Your task to perform on an android device: Go to Maps Image 0: 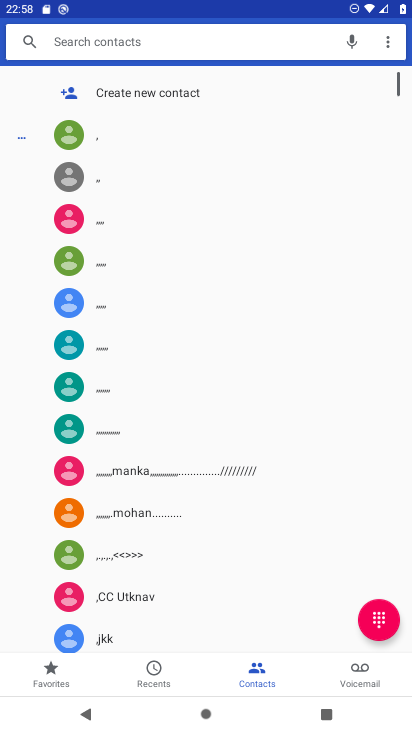
Step 0: press home button
Your task to perform on an android device: Go to Maps Image 1: 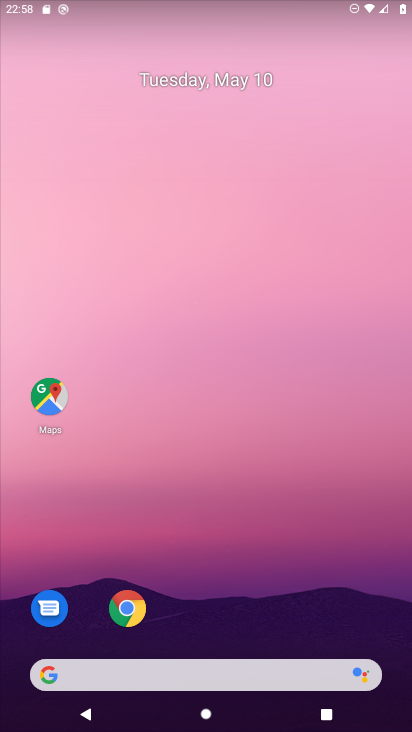
Step 1: drag from (262, 544) to (262, 406)
Your task to perform on an android device: Go to Maps Image 2: 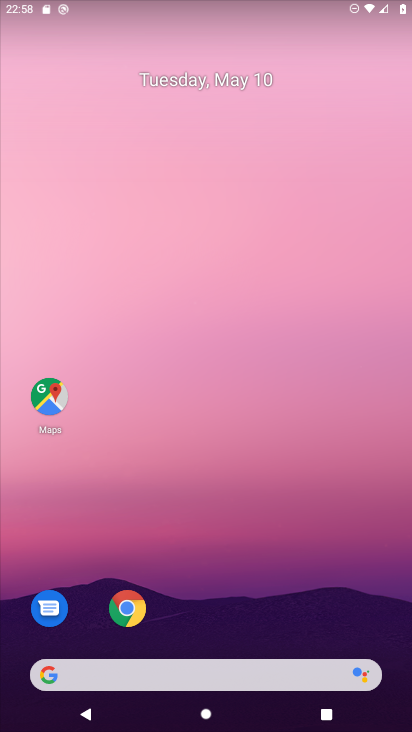
Step 2: click (42, 387)
Your task to perform on an android device: Go to Maps Image 3: 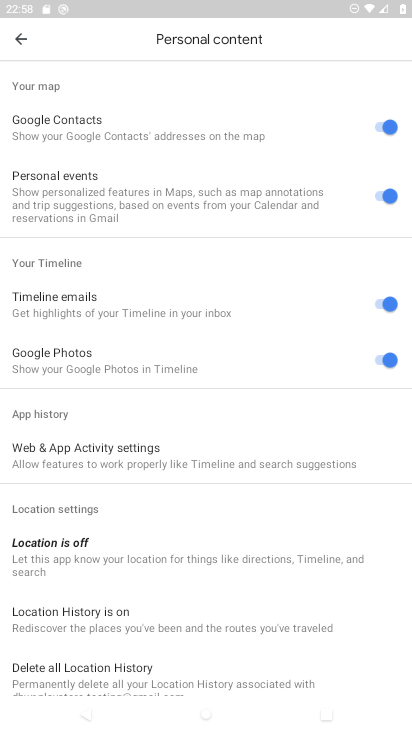
Step 3: click (25, 41)
Your task to perform on an android device: Go to Maps Image 4: 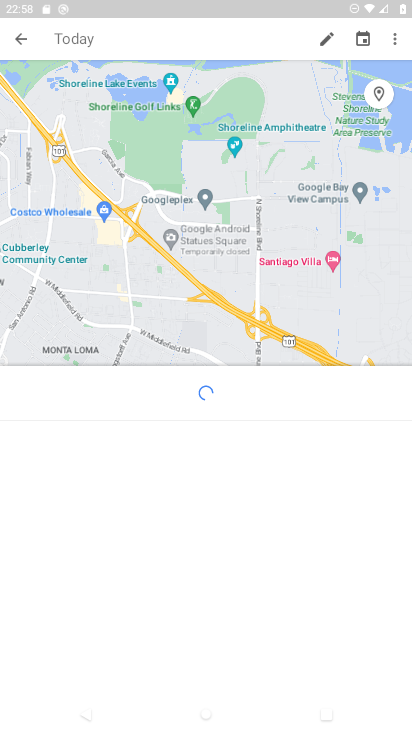
Step 4: click (25, 41)
Your task to perform on an android device: Go to Maps Image 5: 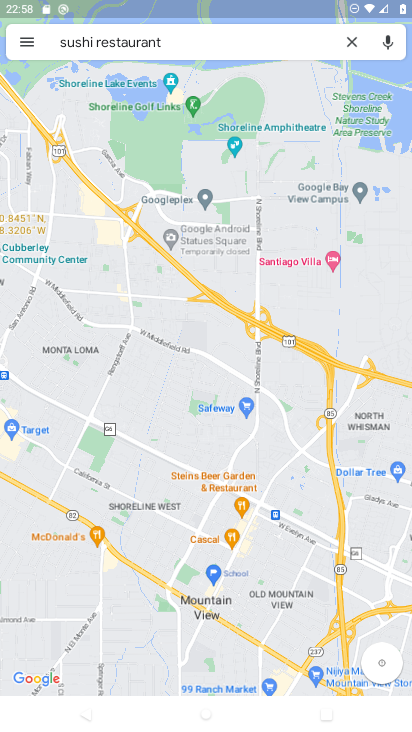
Step 5: task complete